Your task to perform on an android device: Open sound settings Image 0: 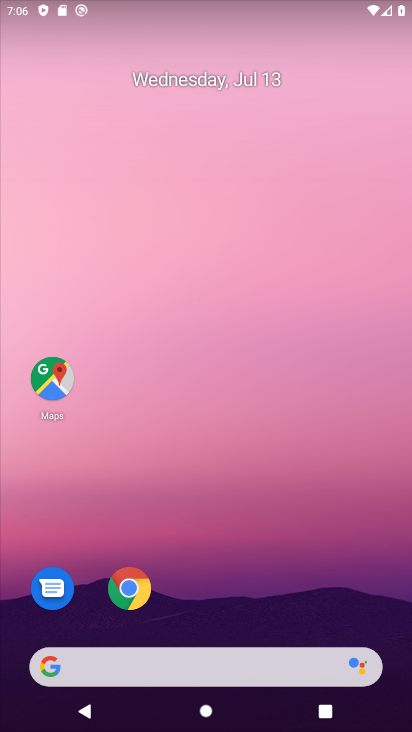
Step 0: drag from (268, 528) to (201, 171)
Your task to perform on an android device: Open sound settings Image 1: 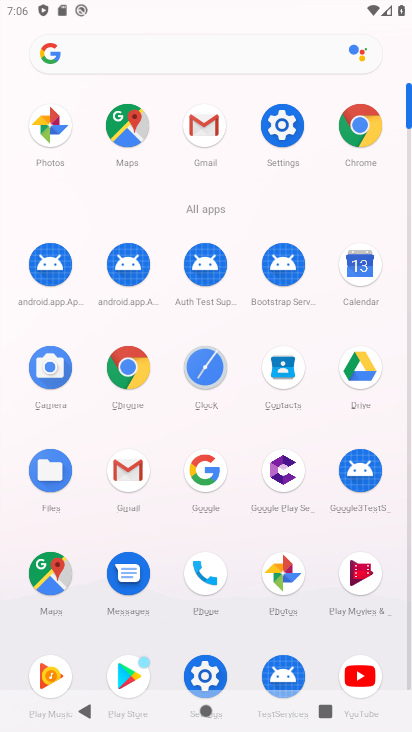
Step 1: click (279, 124)
Your task to perform on an android device: Open sound settings Image 2: 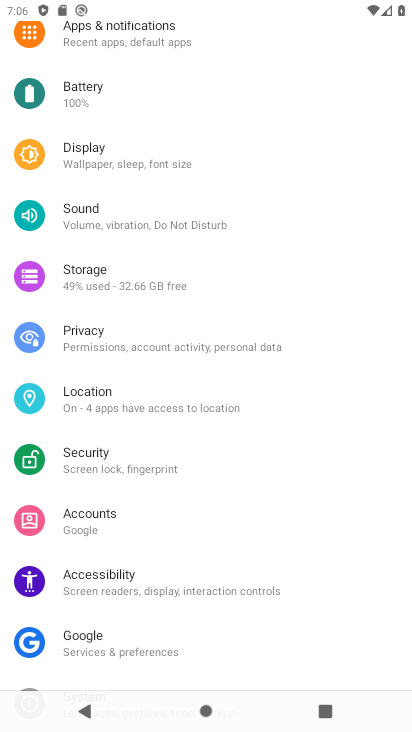
Step 2: click (76, 205)
Your task to perform on an android device: Open sound settings Image 3: 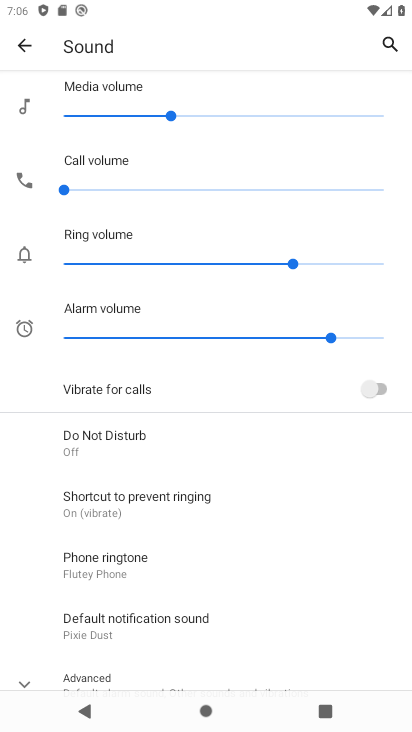
Step 3: task complete